Your task to perform on an android device: What's a good restaurant in Los Angeles? Image 0: 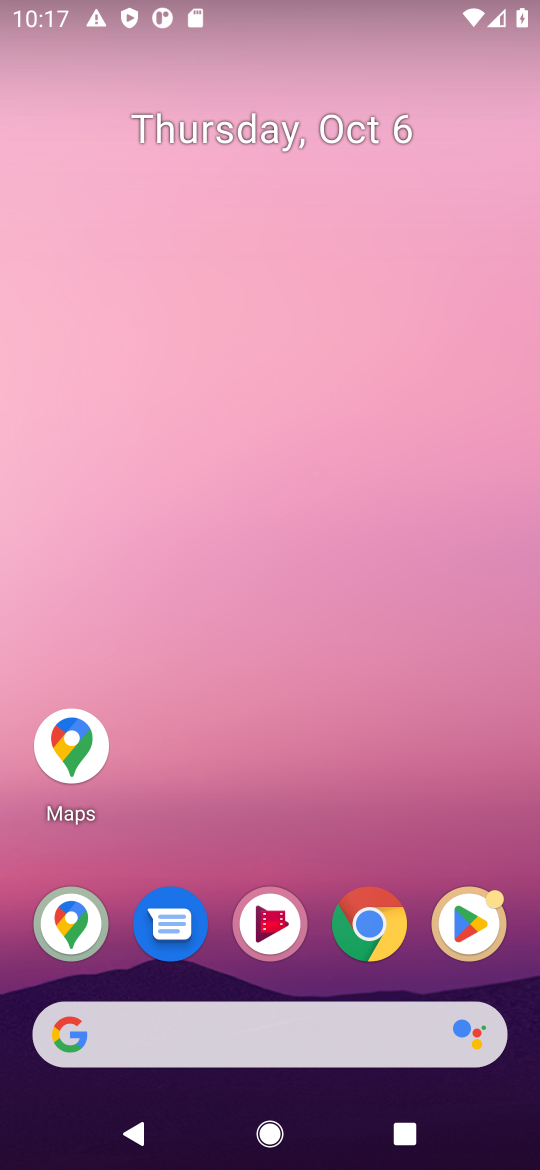
Step 0: click (74, 748)
Your task to perform on an android device: What's a good restaurant in Los Angeles? Image 1: 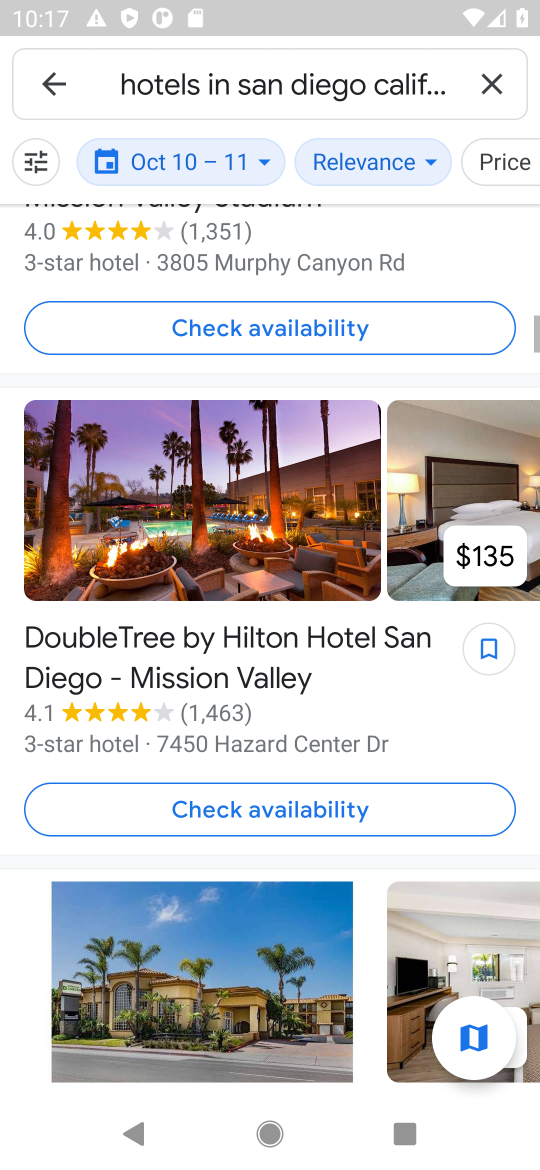
Step 1: click (487, 83)
Your task to perform on an android device: What's a good restaurant in Los Angeles? Image 2: 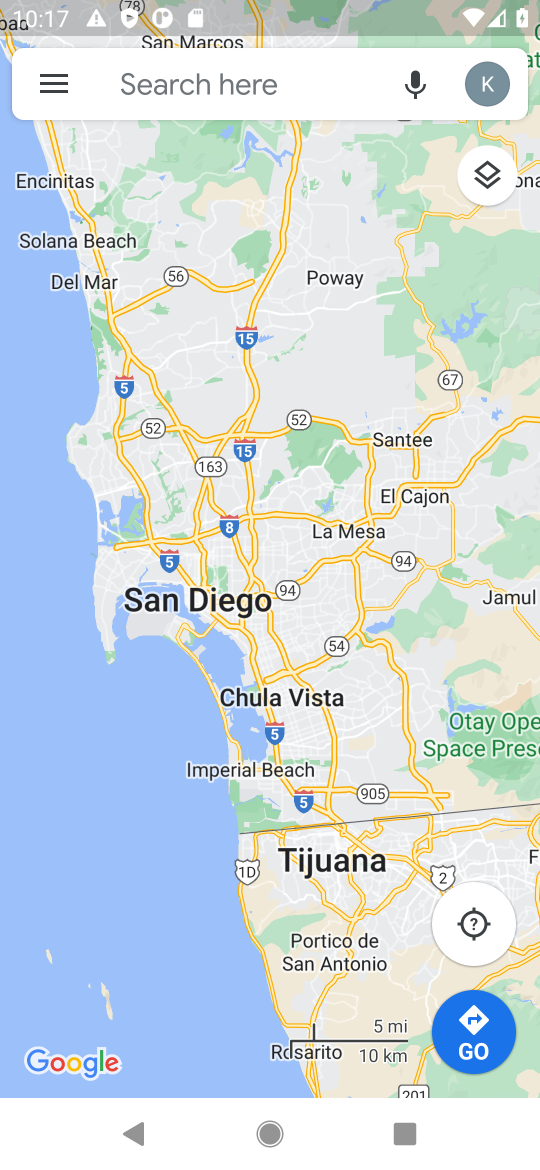
Step 2: click (201, 79)
Your task to perform on an android device: What's a good restaurant in Los Angeles? Image 3: 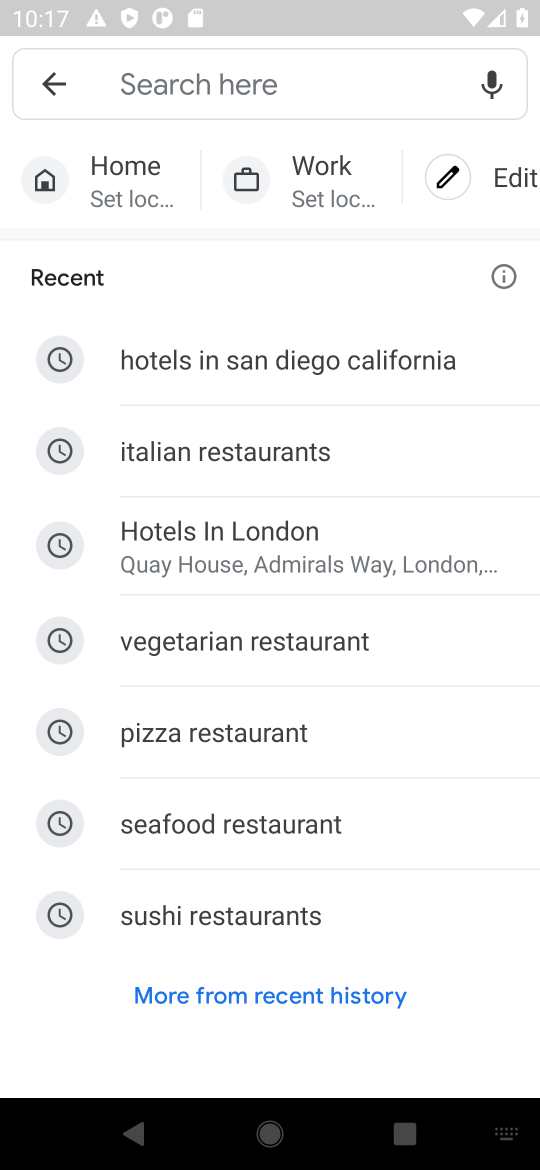
Step 3: type "restaurant in Los Angeles"
Your task to perform on an android device: What's a good restaurant in Los Angeles? Image 4: 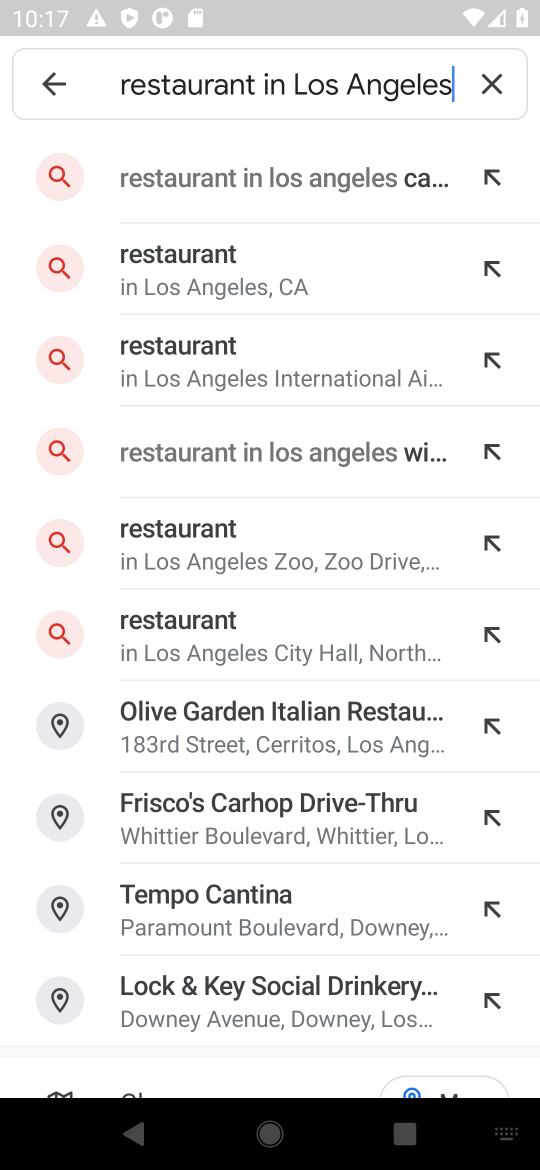
Step 4: click (256, 189)
Your task to perform on an android device: What's a good restaurant in Los Angeles? Image 5: 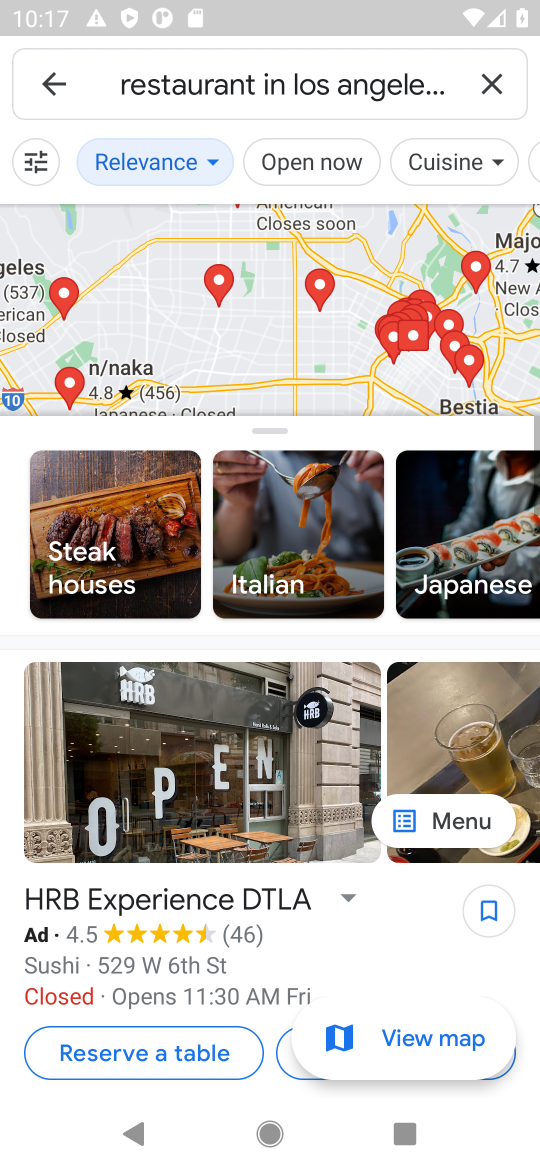
Step 5: task complete